Your task to perform on an android device: turn on sleep mode Image 0: 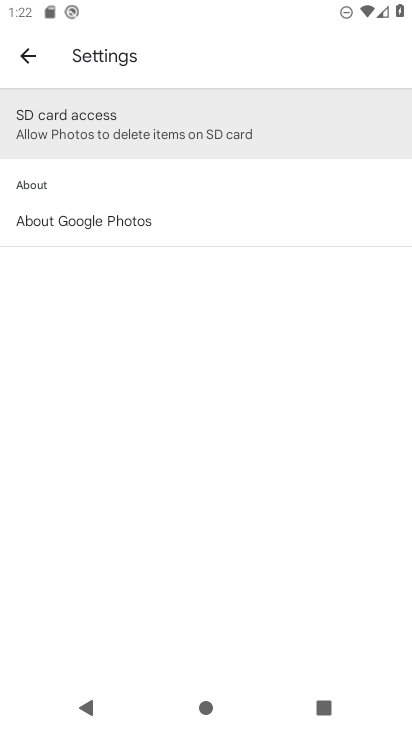
Step 0: press home button
Your task to perform on an android device: turn on sleep mode Image 1: 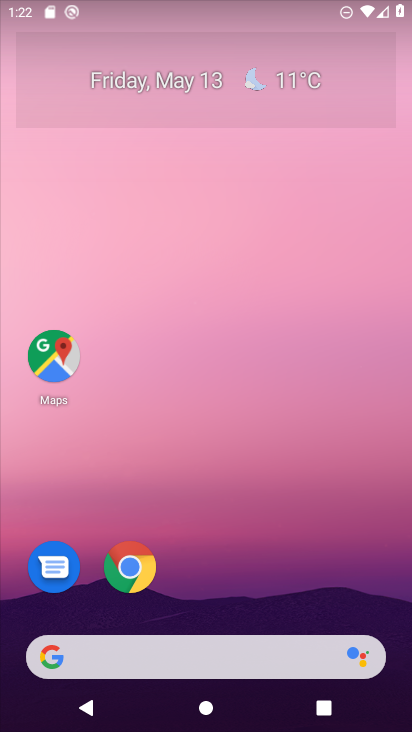
Step 1: drag from (203, 604) to (219, 60)
Your task to perform on an android device: turn on sleep mode Image 2: 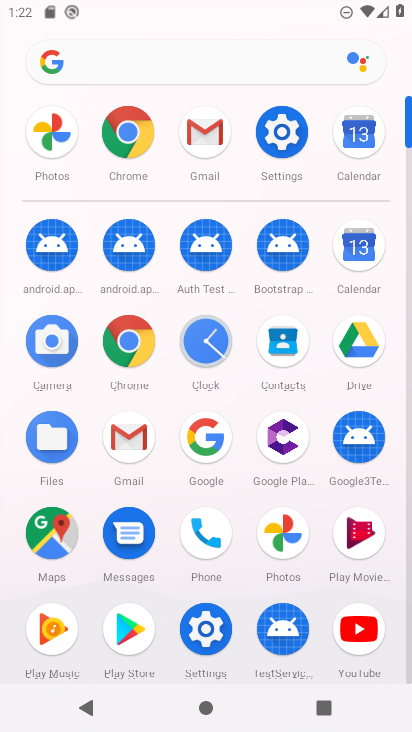
Step 2: click (279, 120)
Your task to perform on an android device: turn on sleep mode Image 3: 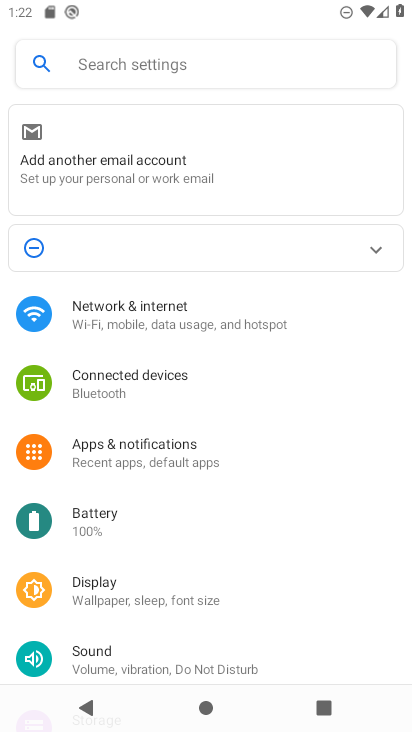
Step 3: drag from (159, 647) to (154, 126)
Your task to perform on an android device: turn on sleep mode Image 4: 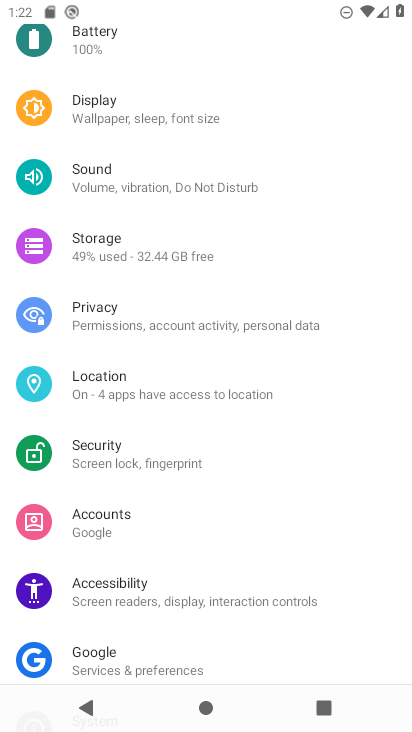
Step 4: click (128, 103)
Your task to perform on an android device: turn on sleep mode Image 5: 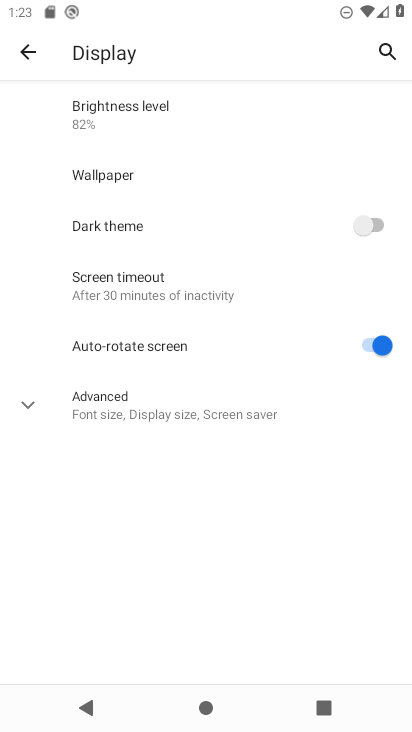
Step 5: click (29, 398)
Your task to perform on an android device: turn on sleep mode Image 6: 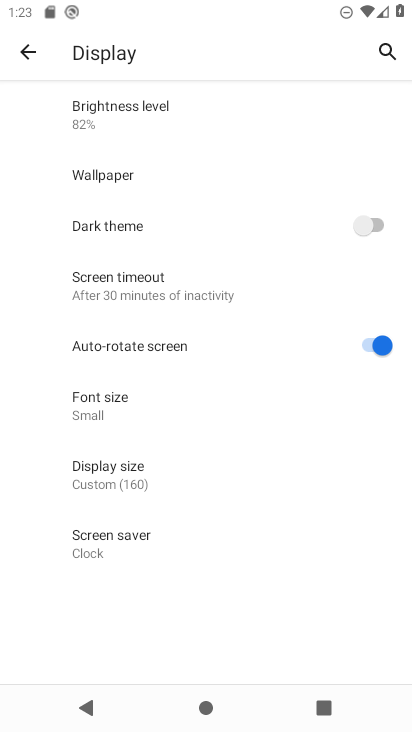
Step 6: task complete